Your task to perform on an android device: Search for Italian restaurants on Maps Image 0: 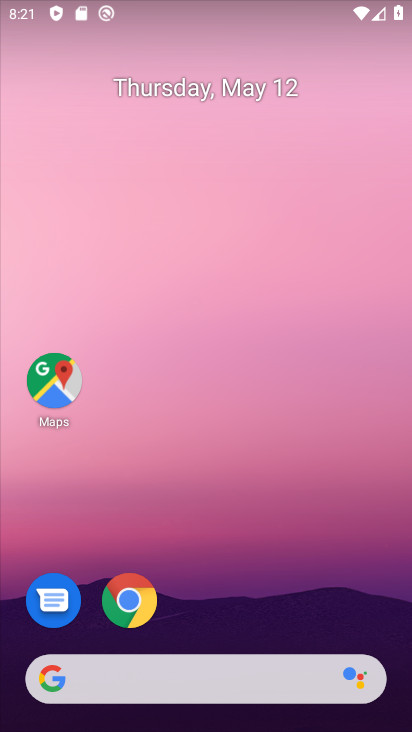
Step 0: click (39, 377)
Your task to perform on an android device: Search for Italian restaurants on Maps Image 1: 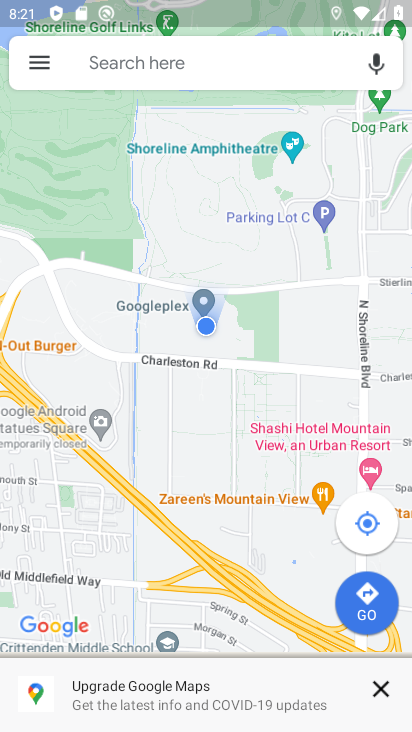
Step 1: click (166, 52)
Your task to perform on an android device: Search for Italian restaurants on Maps Image 2: 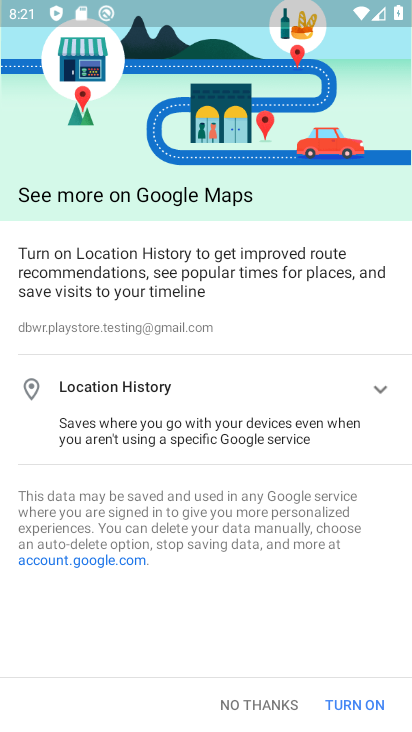
Step 2: click (237, 704)
Your task to perform on an android device: Search for Italian restaurants on Maps Image 3: 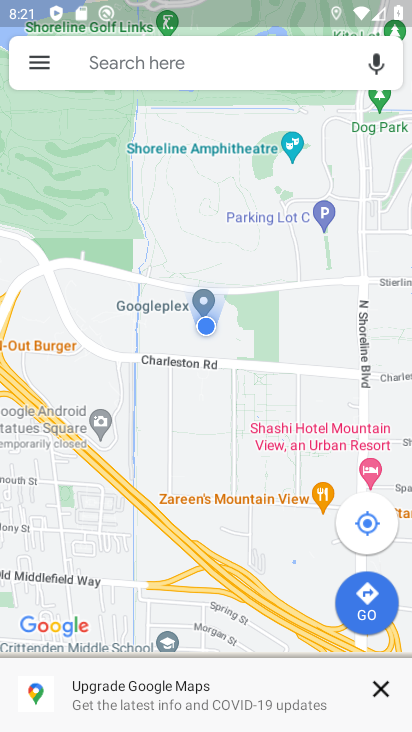
Step 3: click (162, 71)
Your task to perform on an android device: Search for Italian restaurants on Maps Image 4: 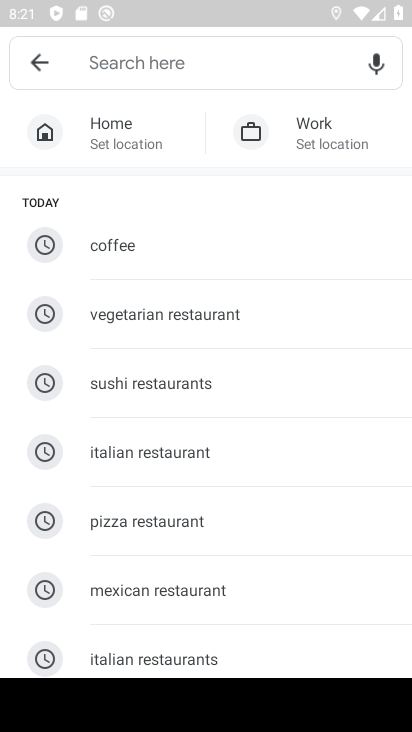
Step 4: click (185, 463)
Your task to perform on an android device: Search for Italian restaurants on Maps Image 5: 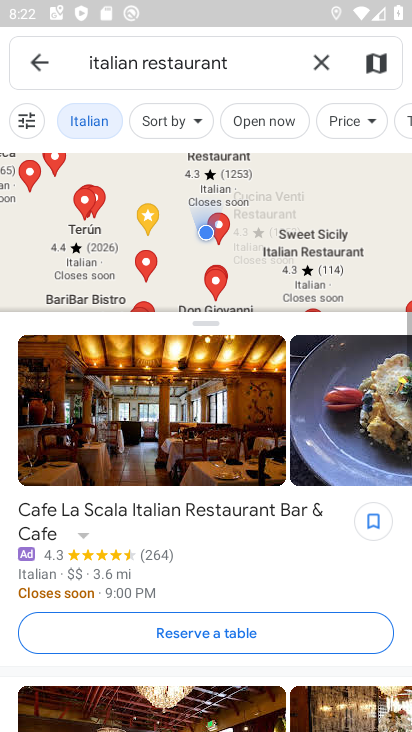
Step 5: task complete